Your task to perform on an android device: turn off sleep mode Image 0: 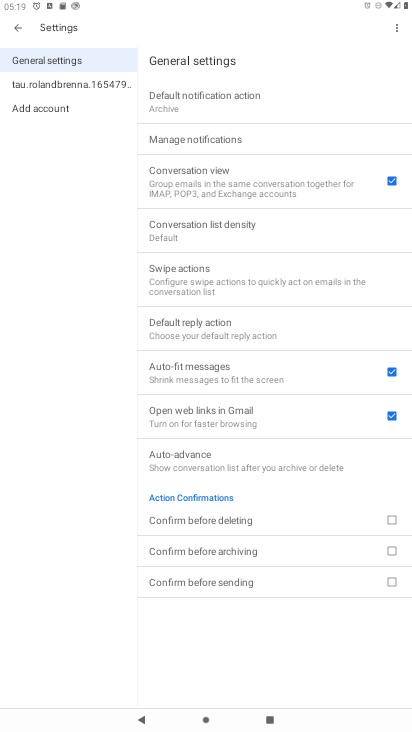
Step 0: press home button
Your task to perform on an android device: turn off sleep mode Image 1: 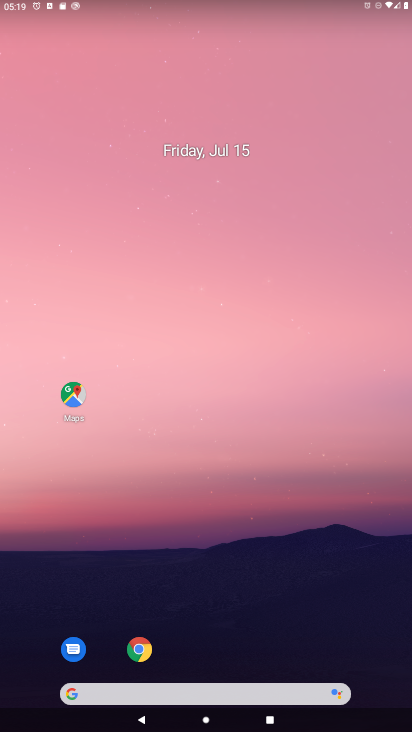
Step 1: drag from (391, 660) to (341, 127)
Your task to perform on an android device: turn off sleep mode Image 2: 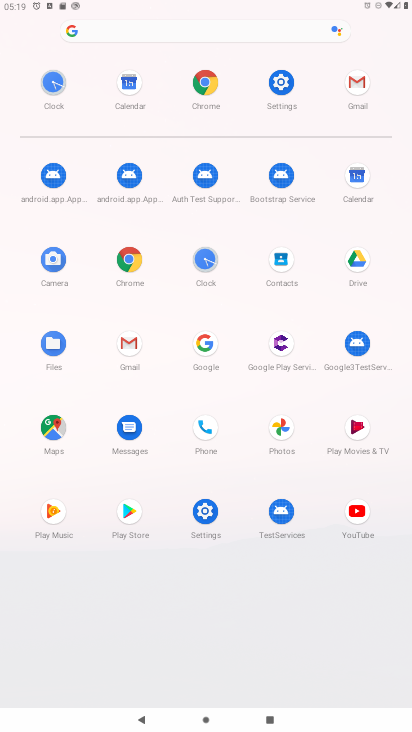
Step 2: click (205, 511)
Your task to perform on an android device: turn off sleep mode Image 3: 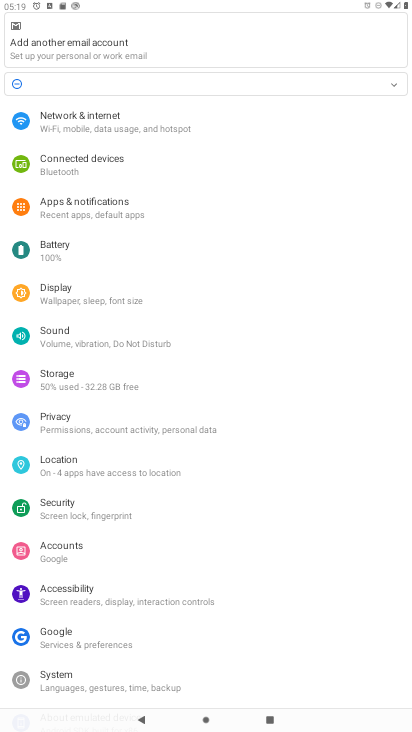
Step 3: click (64, 294)
Your task to perform on an android device: turn off sleep mode Image 4: 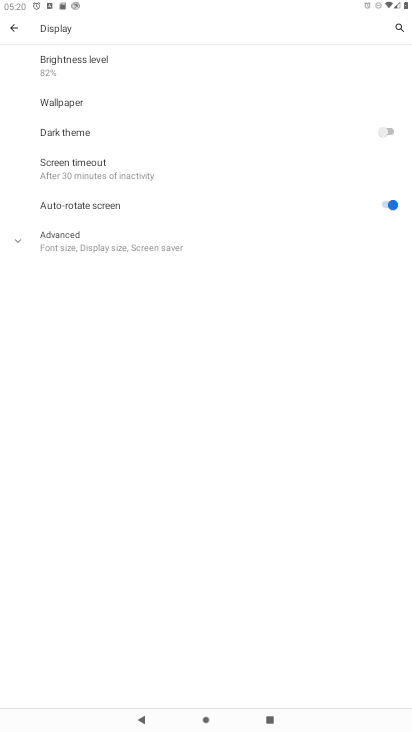
Step 4: click (18, 240)
Your task to perform on an android device: turn off sleep mode Image 5: 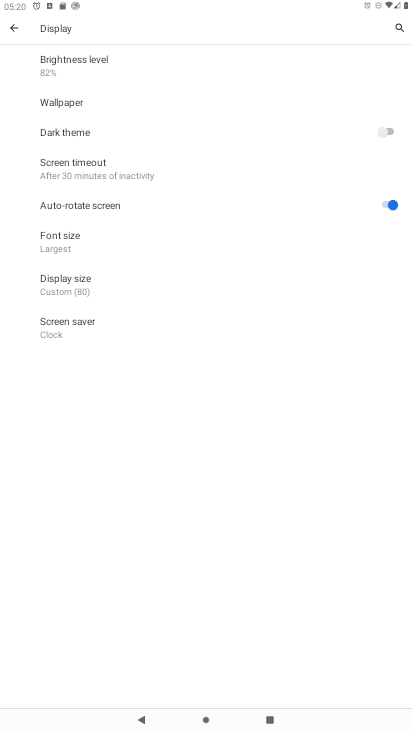
Step 5: task complete